Your task to perform on an android device: add a contact in the contacts app Image 0: 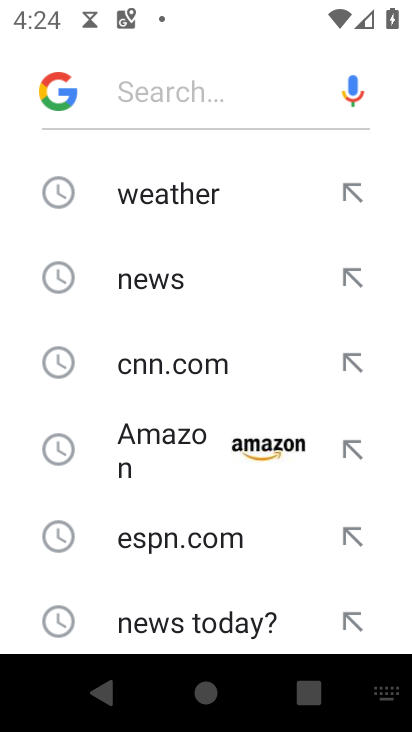
Step 0: press home button
Your task to perform on an android device: add a contact in the contacts app Image 1: 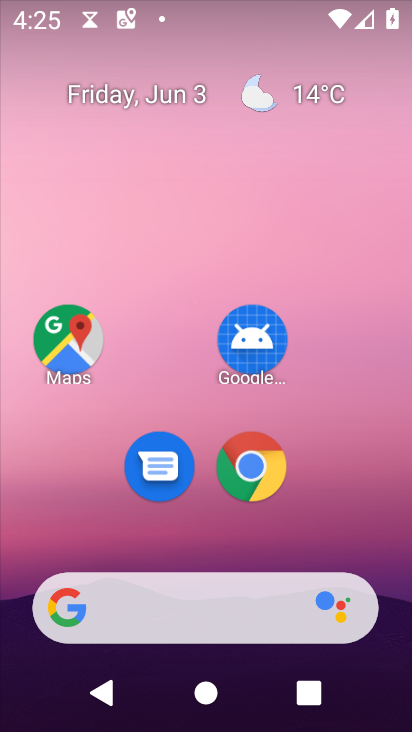
Step 1: drag from (352, 514) to (334, 112)
Your task to perform on an android device: add a contact in the contacts app Image 2: 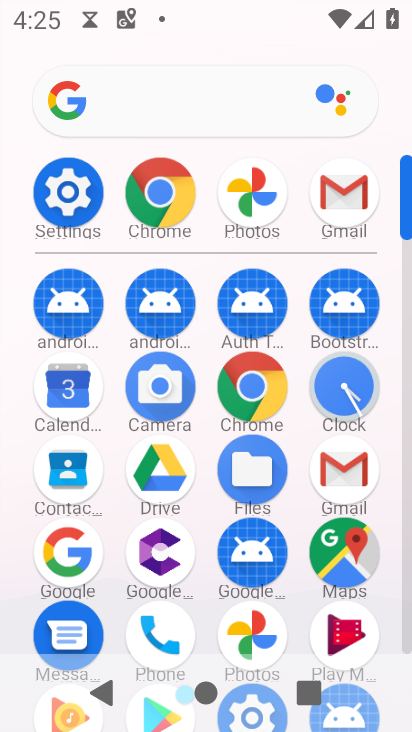
Step 2: click (69, 489)
Your task to perform on an android device: add a contact in the contacts app Image 3: 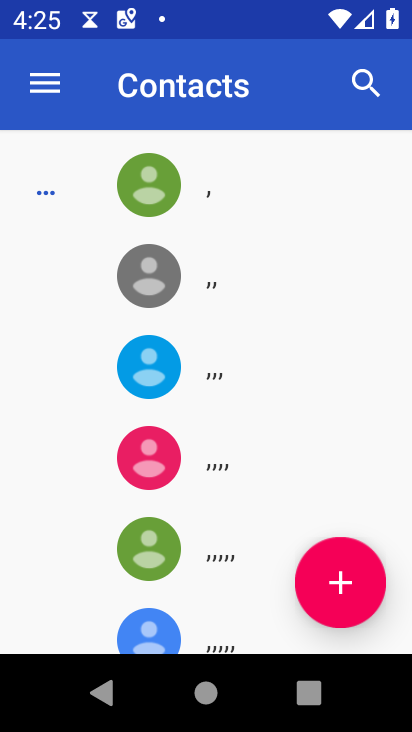
Step 3: click (332, 597)
Your task to perform on an android device: add a contact in the contacts app Image 4: 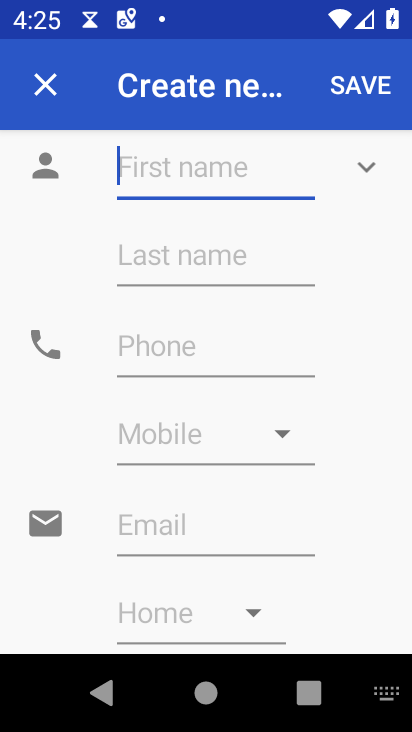
Step 4: type "]'"
Your task to perform on an android device: add a contact in the contacts app Image 5: 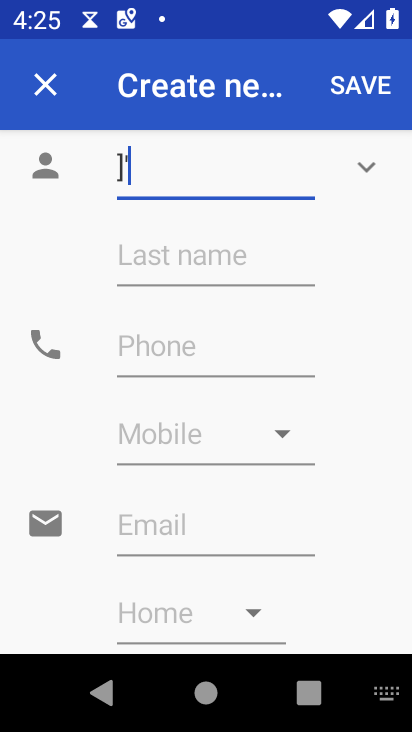
Step 5: type "''''"
Your task to perform on an android device: add a contact in the contacts app Image 6: 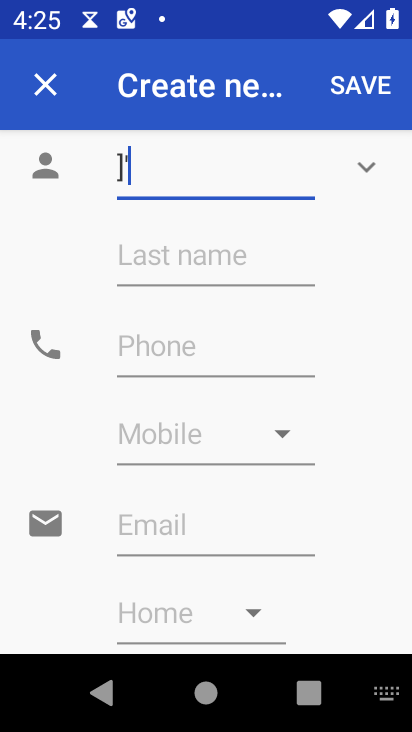
Step 6: click (275, 347)
Your task to perform on an android device: add a contact in the contacts app Image 7: 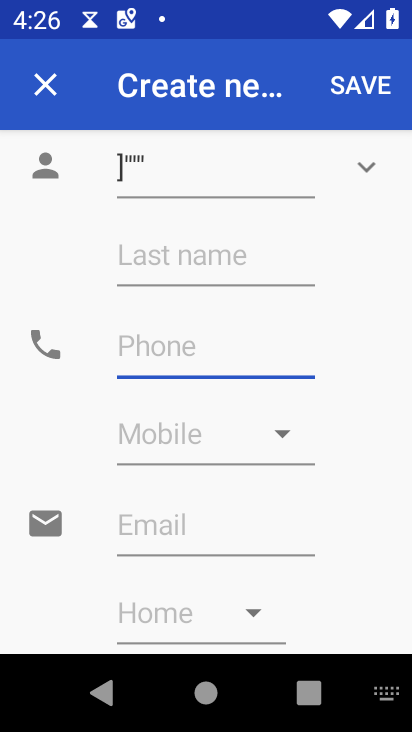
Step 7: type "88800244674"
Your task to perform on an android device: add a contact in the contacts app Image 8: 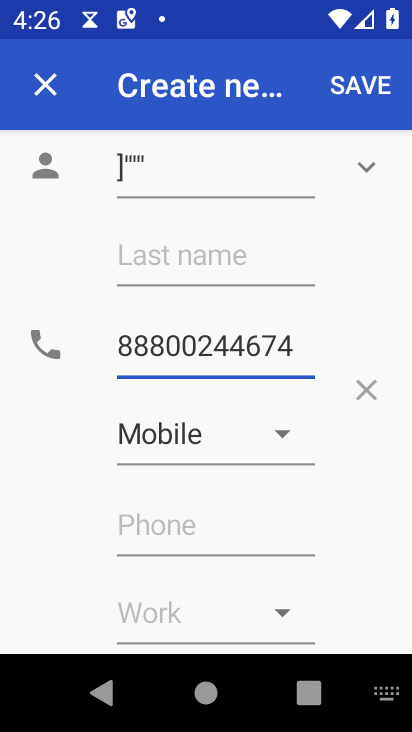
Step 8: click (367, 101)
Your task to perform on an android device: add a contact in the contacts app Image 9: 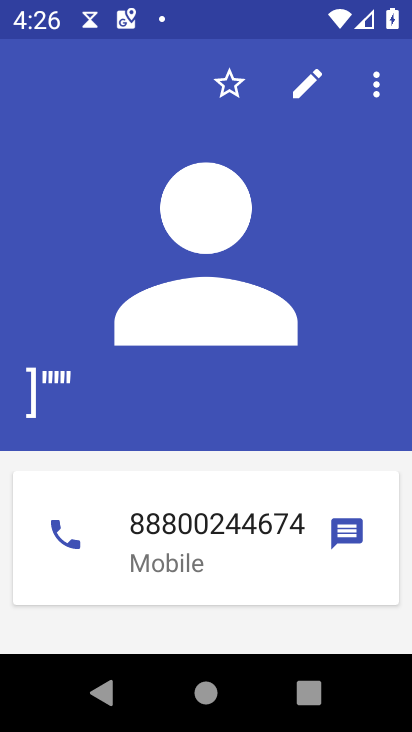
Step 9: task complete